Your task to perform on an android device: turn on the 12-hour format for clock Image 0: 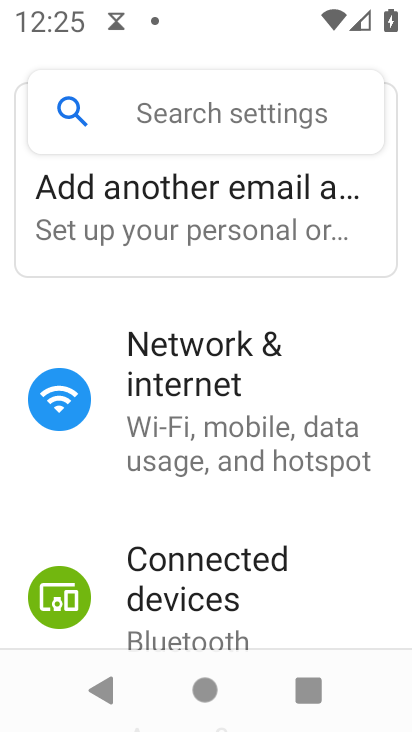
Step 0: press home button
Your task to perform on an android device: turn on the 12-hour format for clock Image 1: 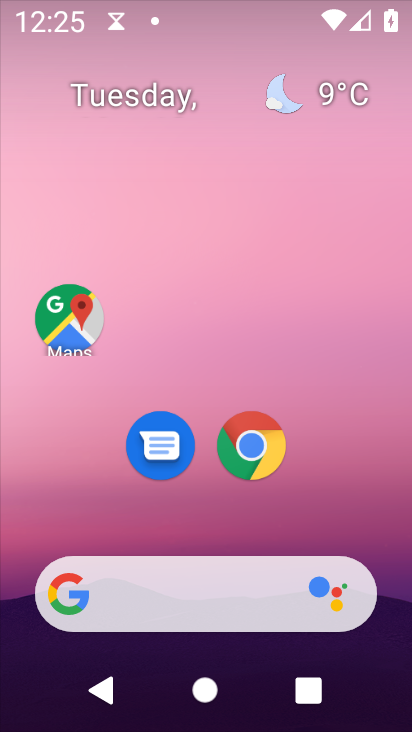
Step 1: drag from (310, 617) to (340, 90)
Your task to perform on an android device: turn on the 12-hour format for clock Image 2: 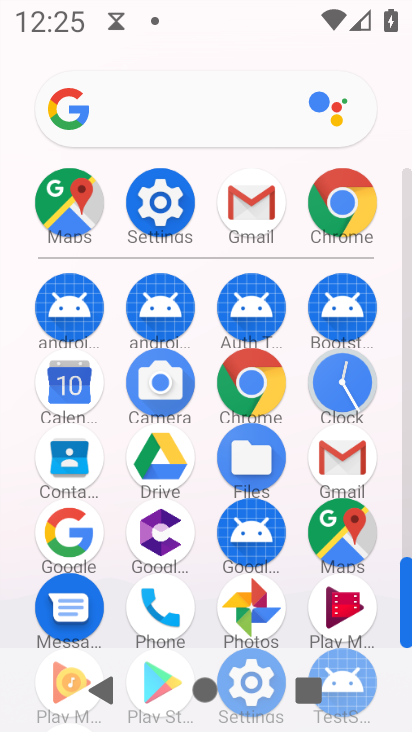
Step 2: click (312, 403)
Your task to perform on an android device: turn on the 12-hour format for clock Image 3: 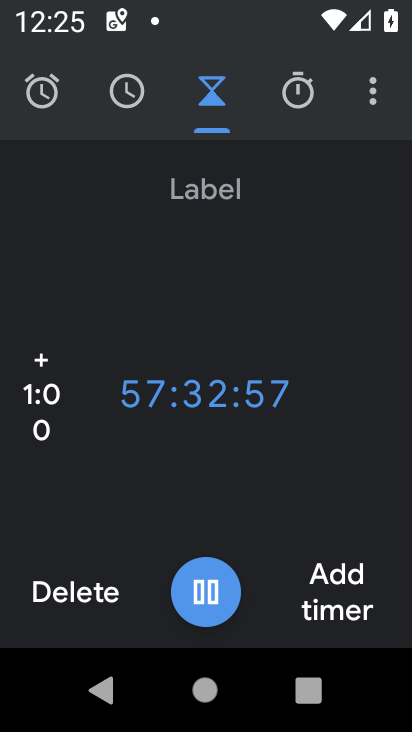
Step 3: click (386, 91)
Your task to perform on an android device: turn on the 12-hour format for clock Image 4: 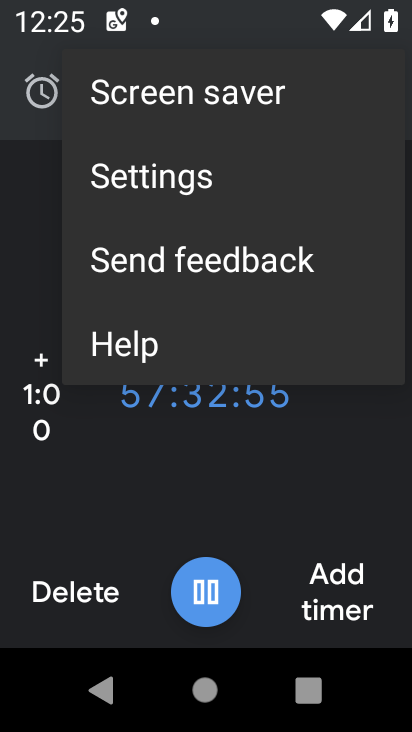
Step 4: click (248, 193)
Your task to perform on an android device: turn on the 12-hour format for clock Image 5: 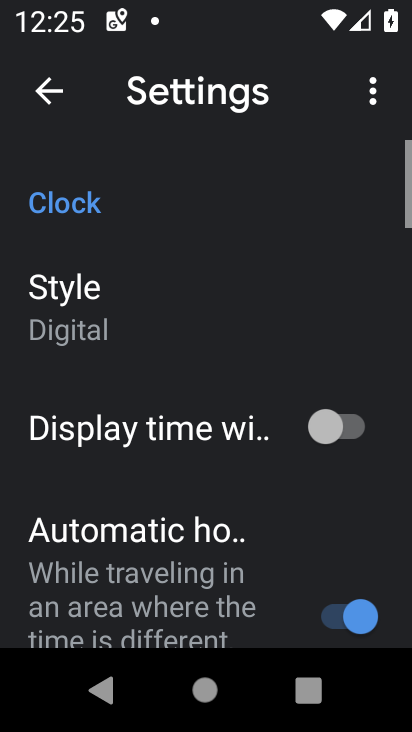
Step 5: drag from (265, 580) to (275, 114)
Your task to perform on an android device: turn on the 12-hour format for clock Image 6: 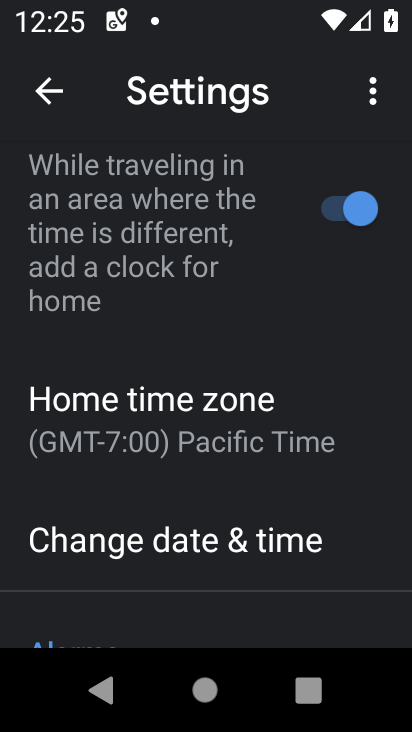
Step 6: click (223, 552)
Your task to perform on an android device: turn on the 12-hour format for clock Image 7: 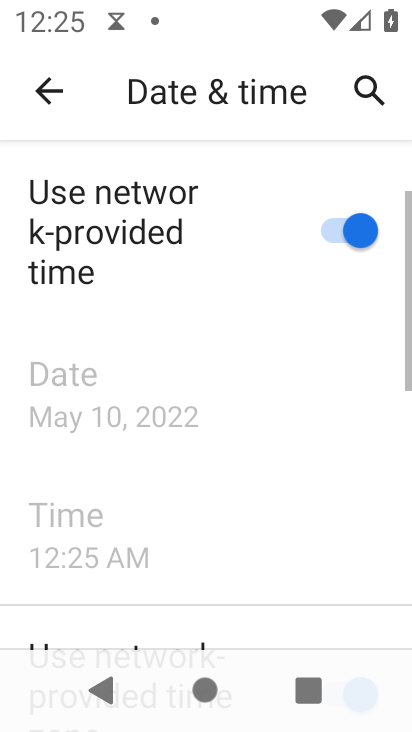
Step 7: task complete